Your task to perform on an android device: turn off improve location accuracy Image 0: 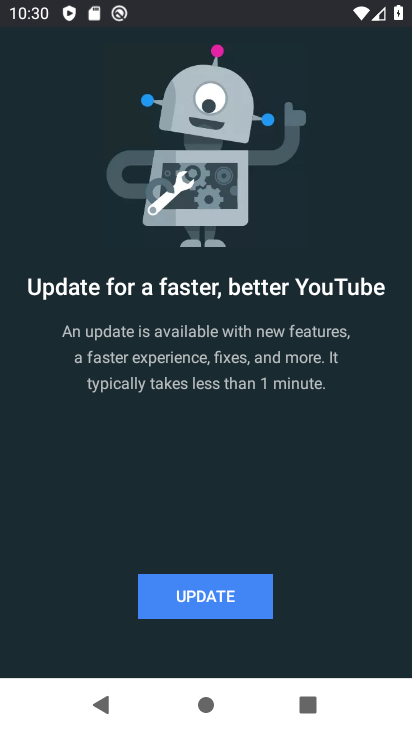
Step 0: press home button
Your task to perform on an android device: turn off improve location accuracy Image 1: 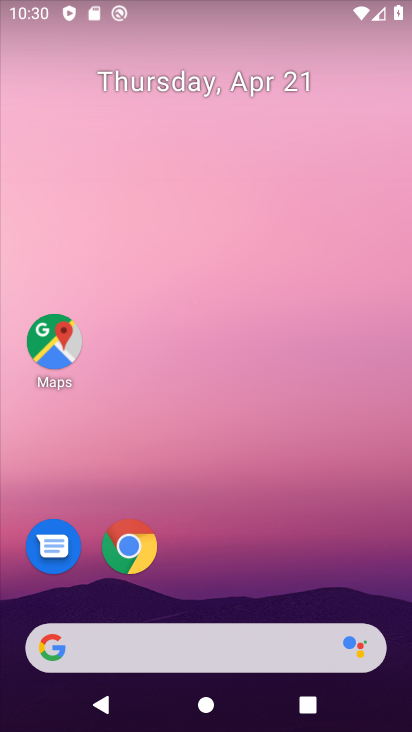
Step 1: drag from (240, 575) to (302, 33)
Your task to perform on an android device: turn off improve location accuracy Image 2: 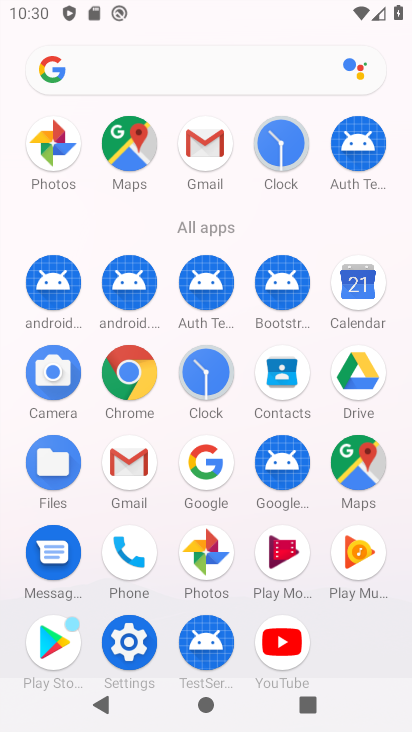
Step 2: click (136, 657)
Your task to perform on an android device: turn off improve location accuracy Image 3: 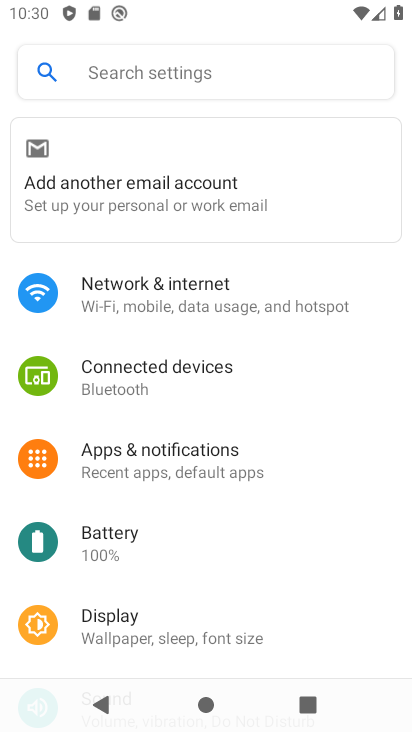
Step 3: drag from (183, 523) to (260, 276)
Your task to perform on an android device: turn off improve location accuracy Image 4: 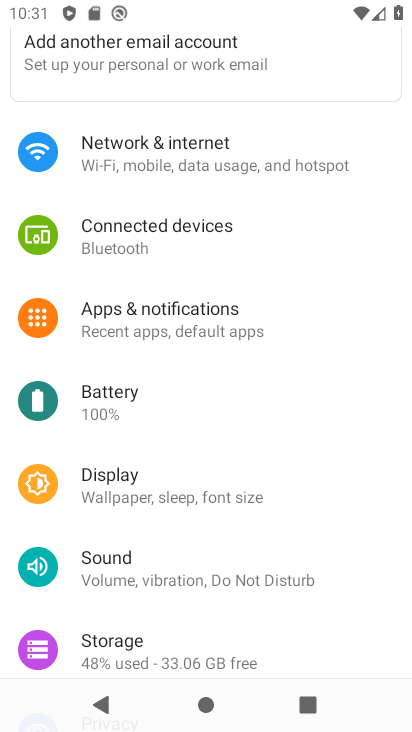
Step 4: drag from (118, 591) to (172, 351)
Your task to perform on an android device: turn off improve location accuracy Image 5: 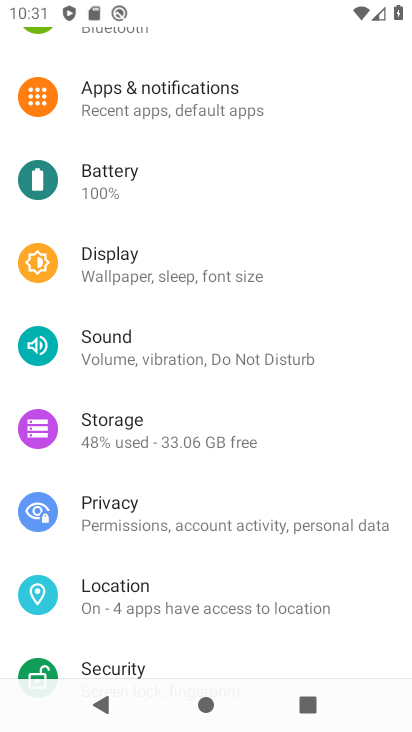
Step 5: click (135, 594)
Your task to perform on an android device: turn off improve location accuracy Image 6: 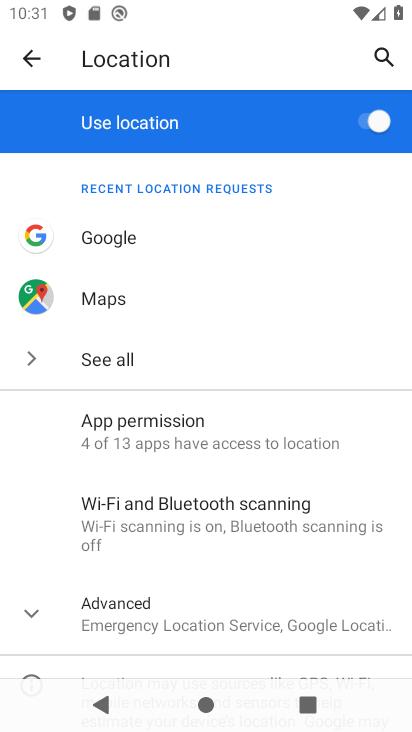
Step 6: drag from (172, 619) to (224, 398)
Your task to perform on an android device: turn off improve location accuracy Image 7: 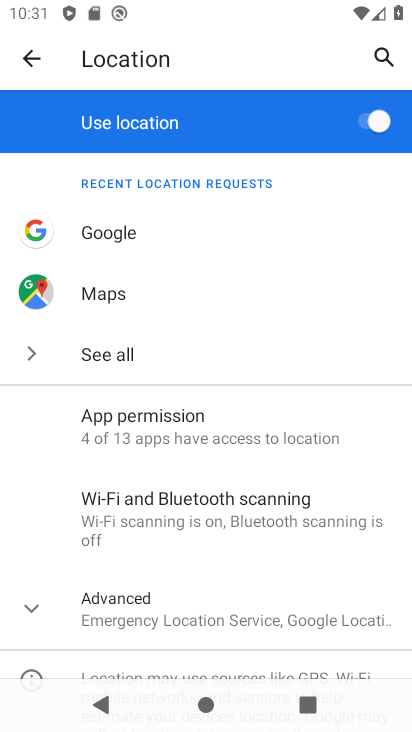
Step 7: drag from (257, 547) to (305, 334)
Your task to perform on an android device: turn off improve location accuracy Image 8: 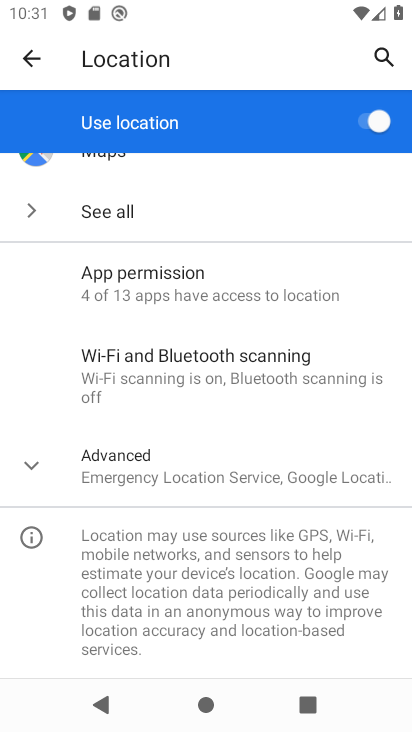
Step 8: click (177, 458)
Your task to perform on an android device: turn off improve location accuracy Image 9: 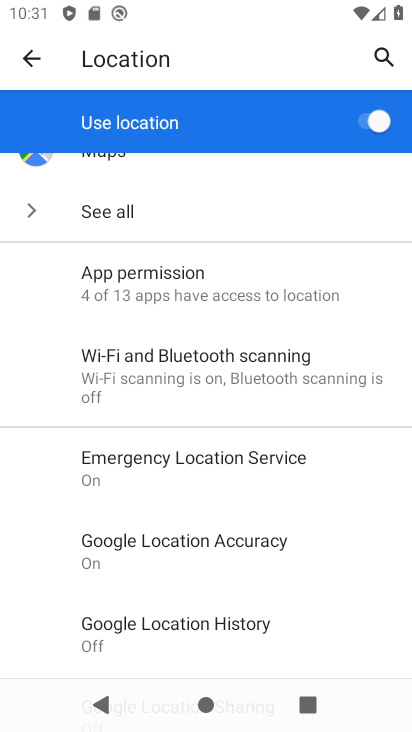
Step 9: drag from (236, 581) to (239, 354)
Your task to perform on an android device: turn off improve location accuracy Image 10: 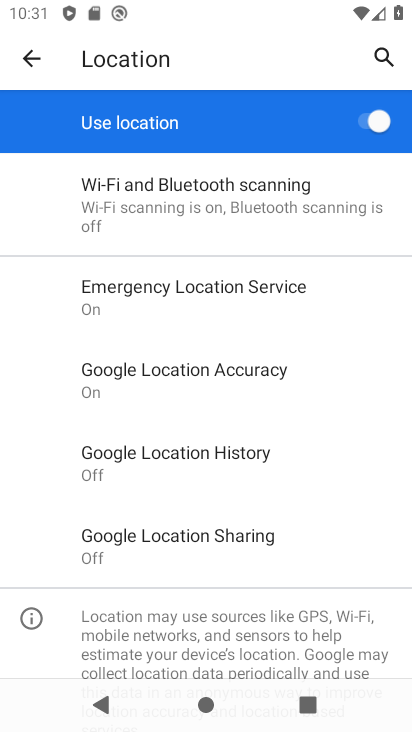
Step 10: click (123, 396)
Your task to perform on an android device: turn off improve location accuracy Image 11: 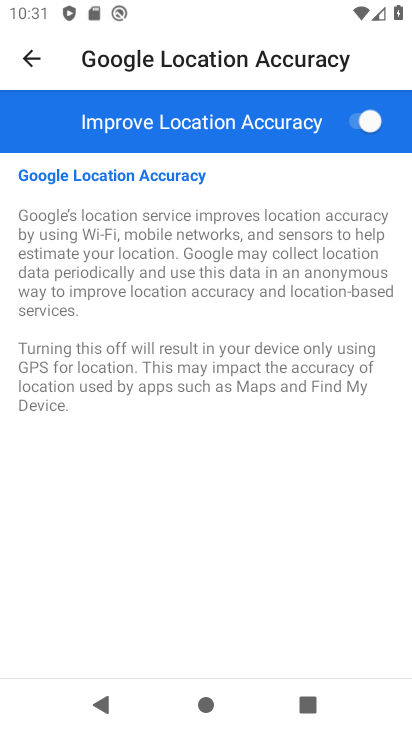
Step 11: click (356, 120)
Your task to perform on an android device: turn off improve location accuracy Image 12: 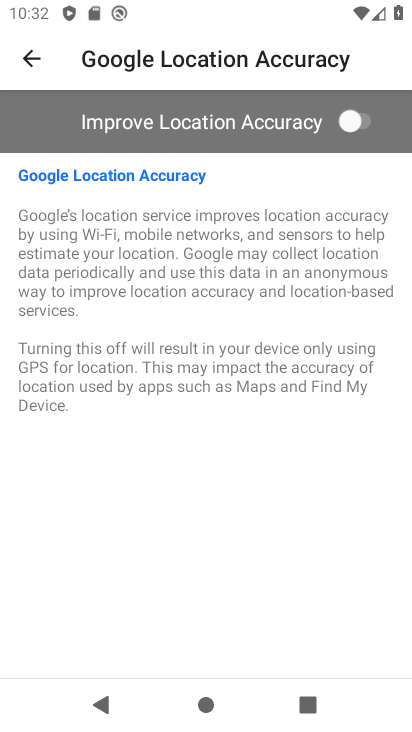
Step 12: task complete